Your task to perform on an android device: see sites visited before in the chrome app Image 0: 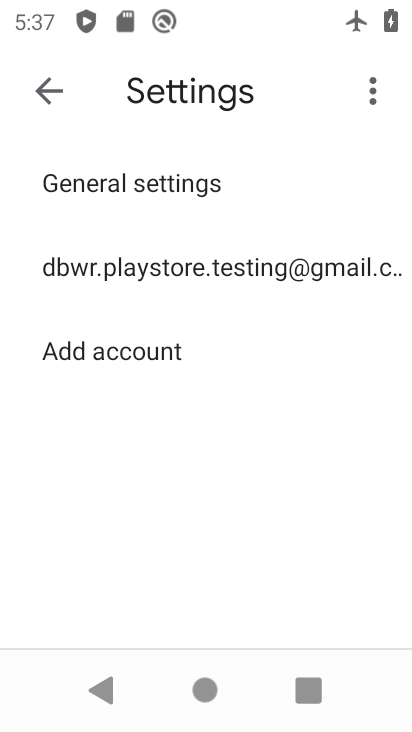
Step 0: press home button
Your task to perform on an android device: see sites visited before in the chrome app Image 1: 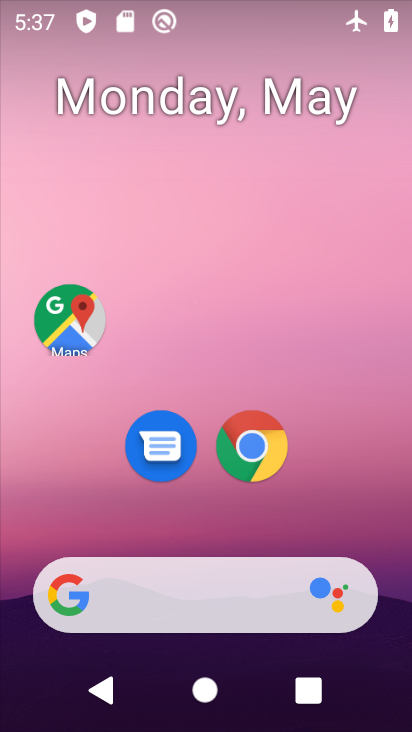
Step 1: click (251, 443)
Your task to perform on an android device: see sites visited before in the chrome app Image 2: 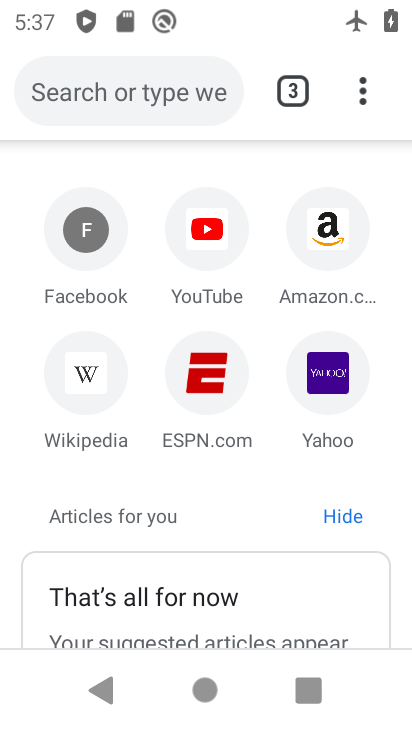
Step 2: click (366, 100)
Your task to perform on an android device: see sites visited before in the chrome app Image 3: 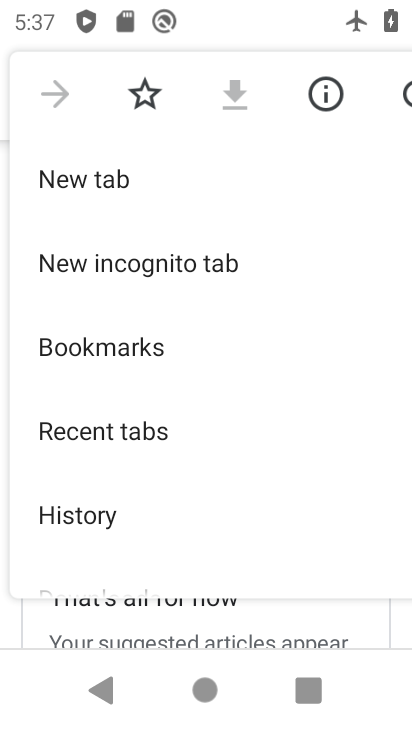
Step 3: click (91, 511)
Your task to perform on an android device: see sites visited before in the chrome app Image 4: 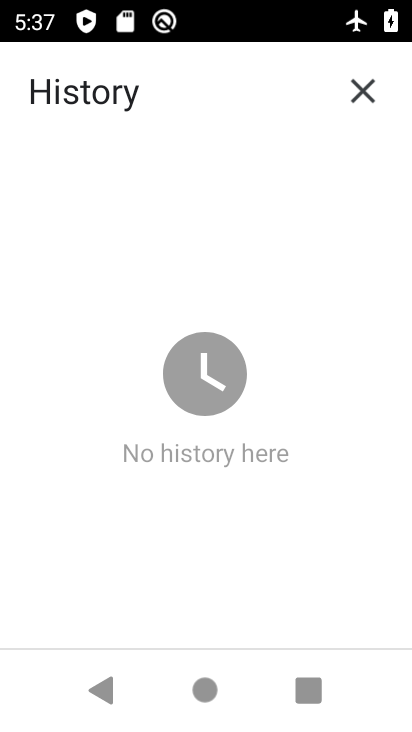
Step 4: task complete